Your task to perform on an android device: Open network settings Image 0: 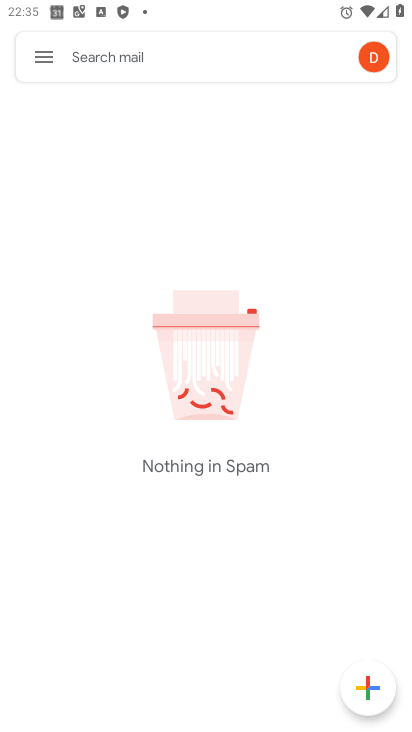
Step 0: press home button
Your task to perform on an android device: Open network settings Image 1: 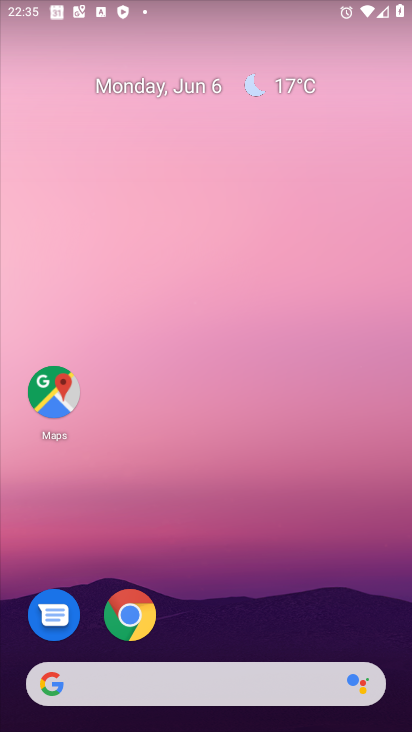
Step 1: drag from (388, 701) to (347, 90)
Your task to perform on an android device: Open network settings Image 2: 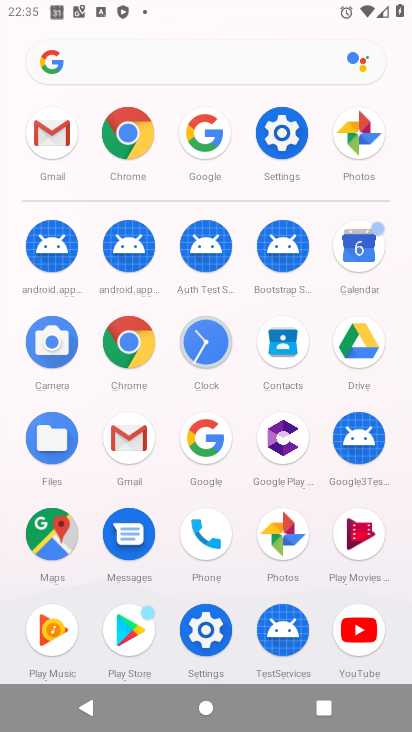
Step 2: click (271, 124)
Your task to perform on an android device: Open network settings Image 3: 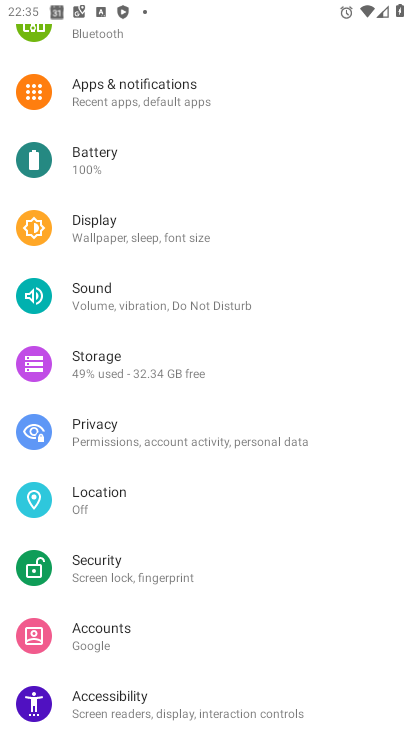
Step 3: drag from (233, 87) to (327, 453)
Your task to perform on an android device: Open network settings Image 4: 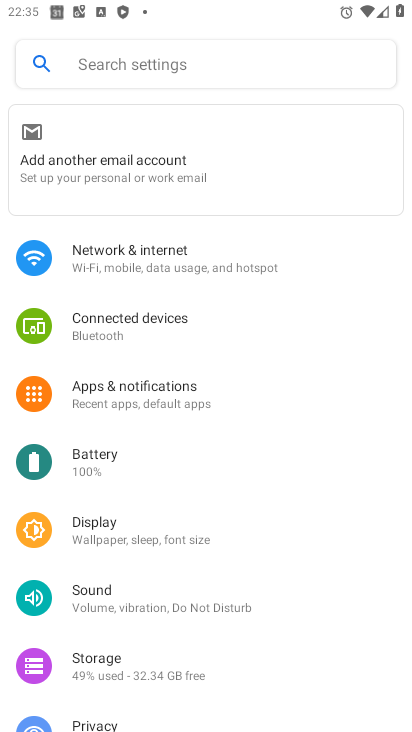
Step 4: click (177, 244)
Your task to perform on an android device: Open network settings Image 5: 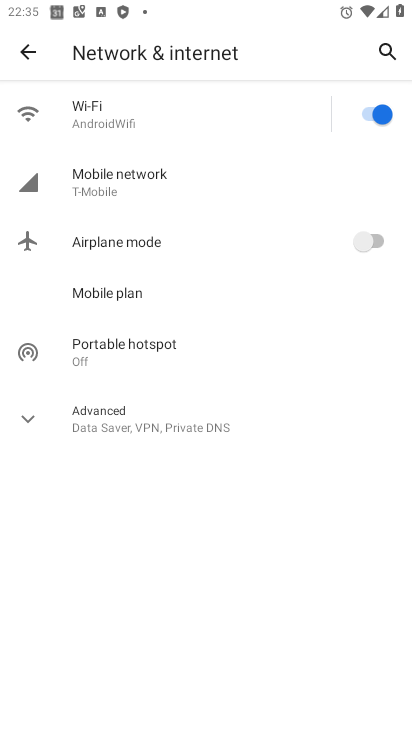
Step 5: click (94, 177)
Your task to perform on an android device: Open network settings Image 6: 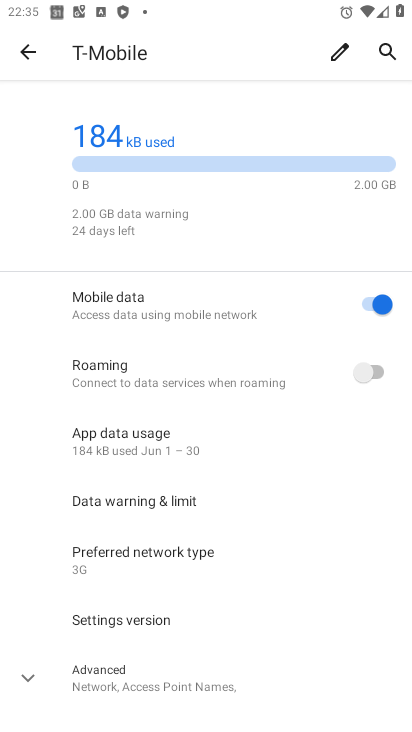
Step 6: click (30, 685)
Your task to perform on an android device: Open network settings Image 7: 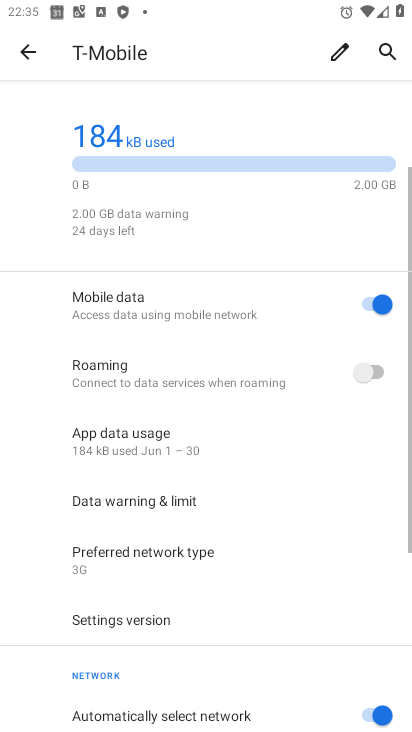
Step 7: task complete